Your task to perform on an android device: Open internet settings Image 0: 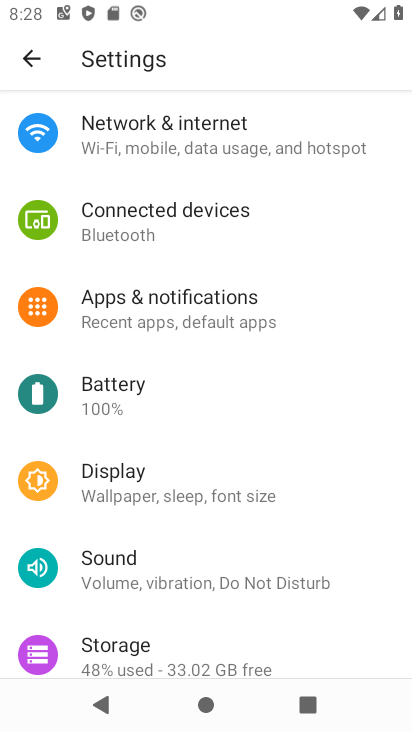
Step 0: click (245, 122)
Your task to perform on an android device: Open internet settings Image 1: 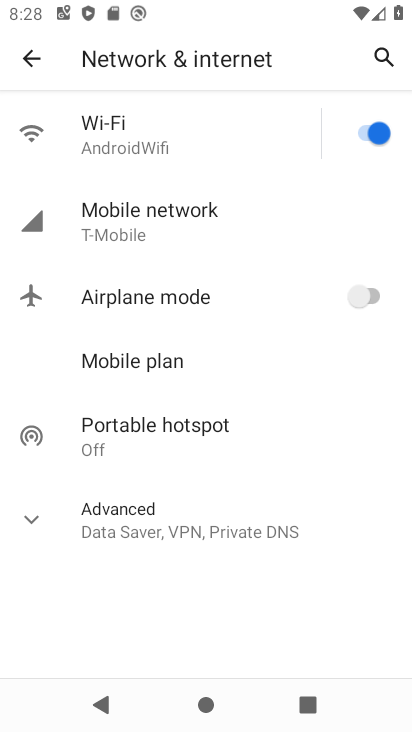
Step 1: click (155, 237)
Your task to perform on an android device: Open internet settings Image 2: 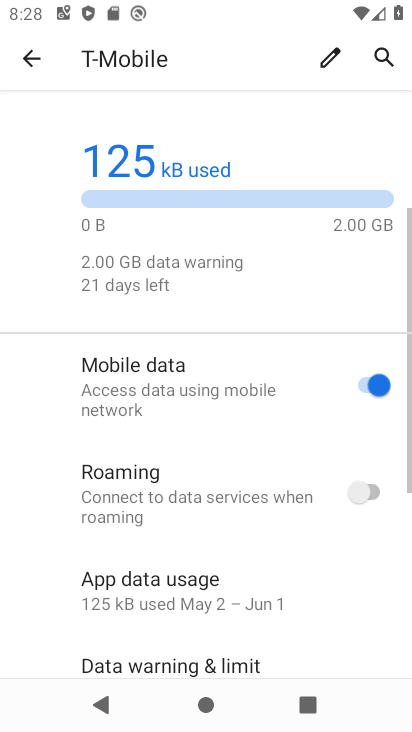
Step 2: task complete